Your task to perform on an android device: Open Amazon Image 0: 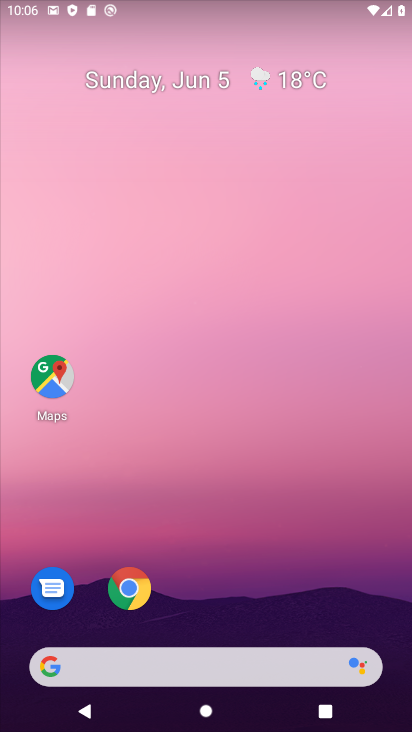
Step 0: drag from (217, 527) to (227, 217)
Your task to perform on an android device: Open Amazon Image 1: 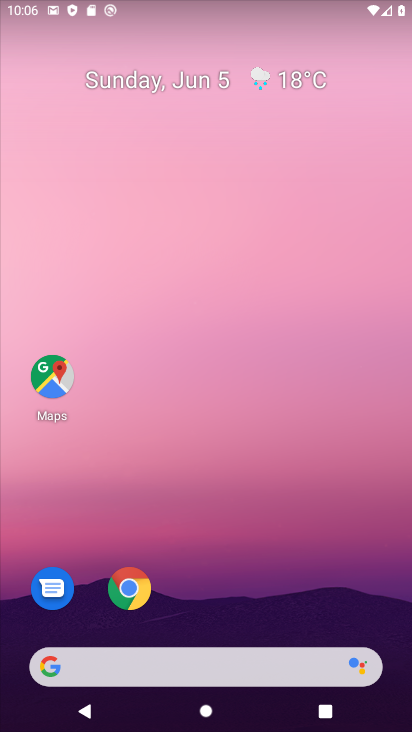
Step 1: drag from (286, 573) to (313, 158)
Your task to perform on an android device: Open Amazon Image 2: 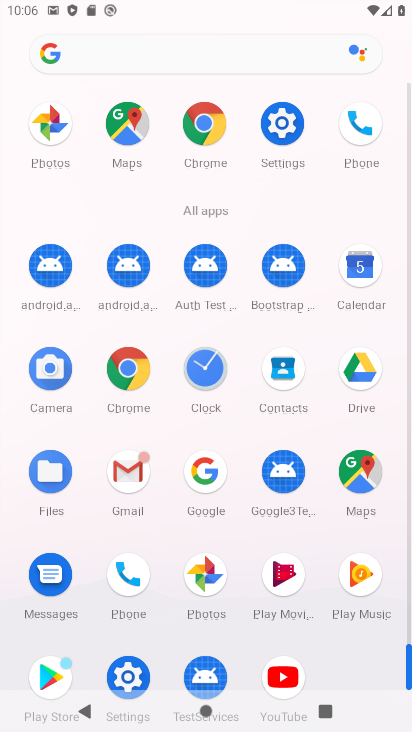
Step 2: click (209, 125)
Your task to perform on an android device: Open Amazon Image 3: 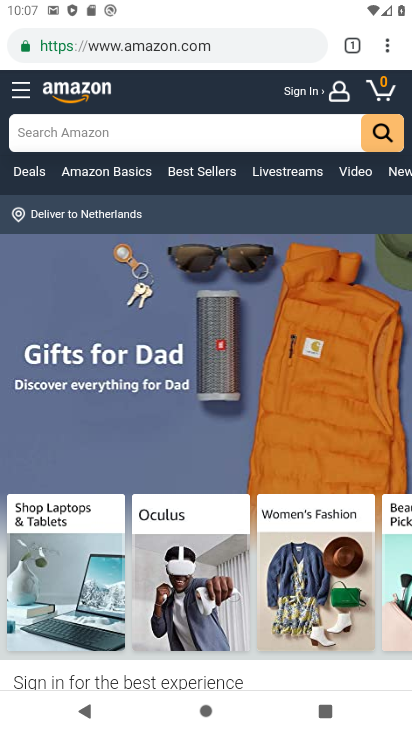
Step 3: task complete